Your task to perform on an android device: Go to Android settings Image 0: 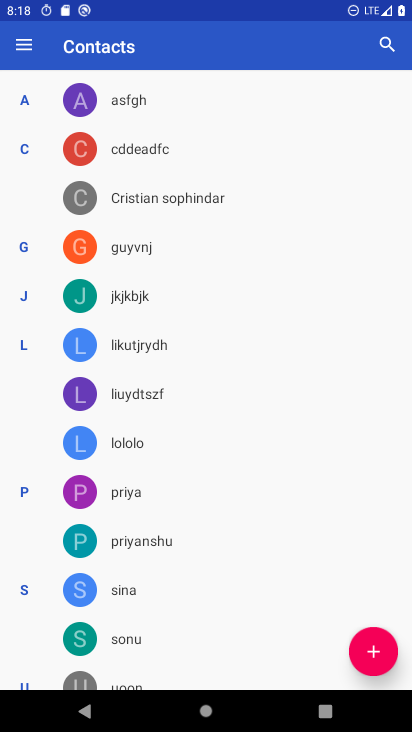
Step 0: press home button
Your task to perform on an android device: Go to Android settings Image 1: 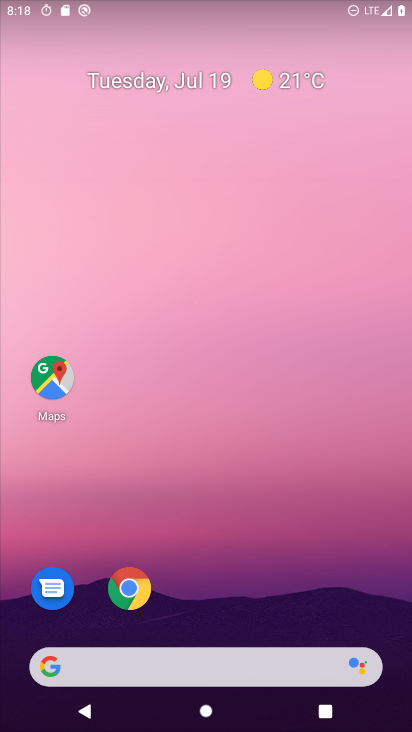
Step 1: drag from (280, 570) to (273, 105)
Your task to perform on an android device: Go to Android settings Image 2: 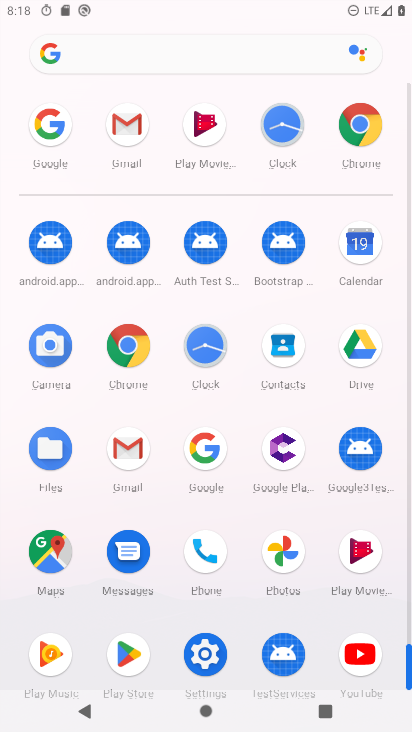
Step 2: click (213, 652)
Your task to perform on an android device: Go to Android settings Image 3: 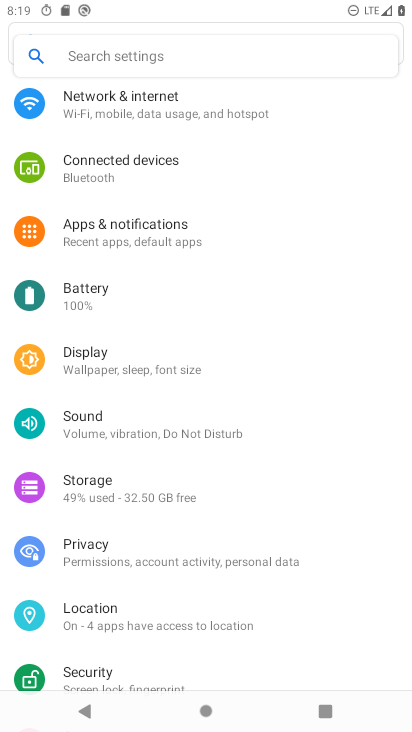
Step 3: task complete